Your task to perform on an android device: Open Google Chrome and open the bookmarks view Image 0: 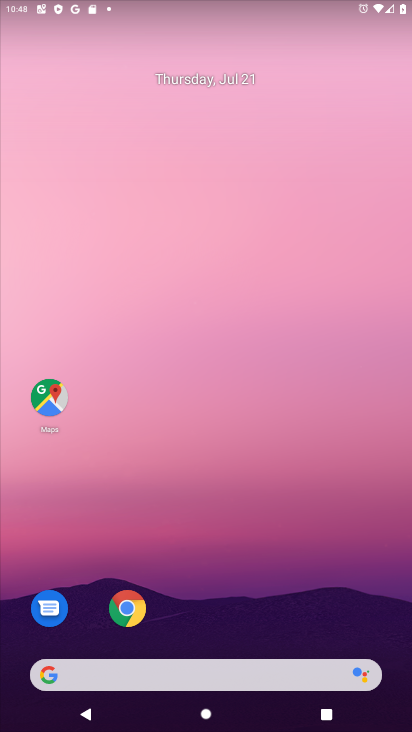
Step 0: drag from (348, 591) to (145, 186)
Your task to perform on an android device: Open Google Chrome and open the bookmarks view Image 1: 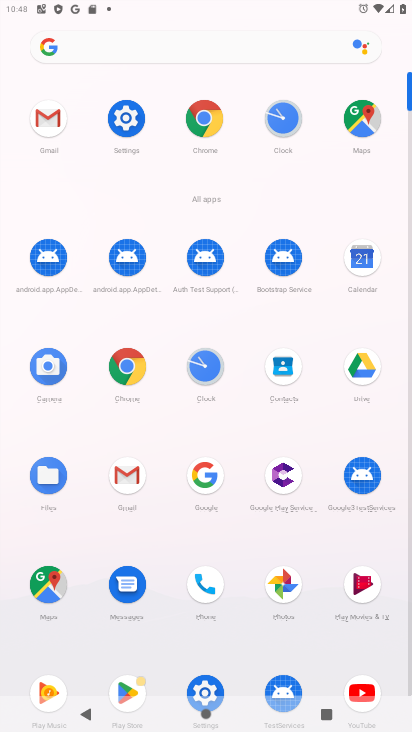
Step 1: click (125, 362)
Your task to perform on an android device: Open Google Chrome and open the bookmarks view Image 2: 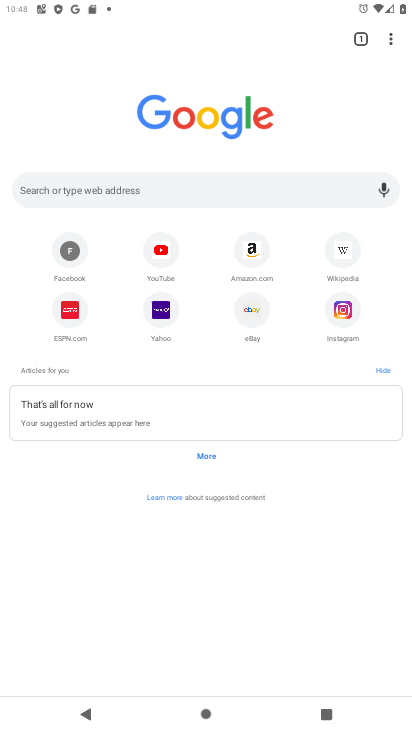
Step 2: click (391, 39)
Your task to perform on an android device: Open Google Chrome and open the bookmarks view Image 3: 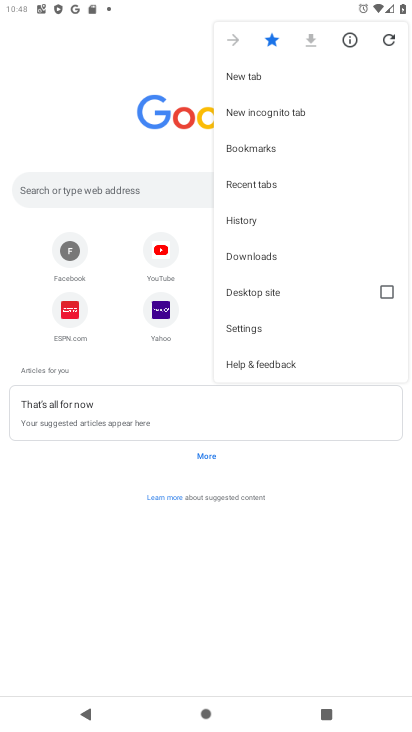
Step 3: click (255, 155)
Your task to perform on an android device: Open Google Chrome and open the bookmarks view Image 4: 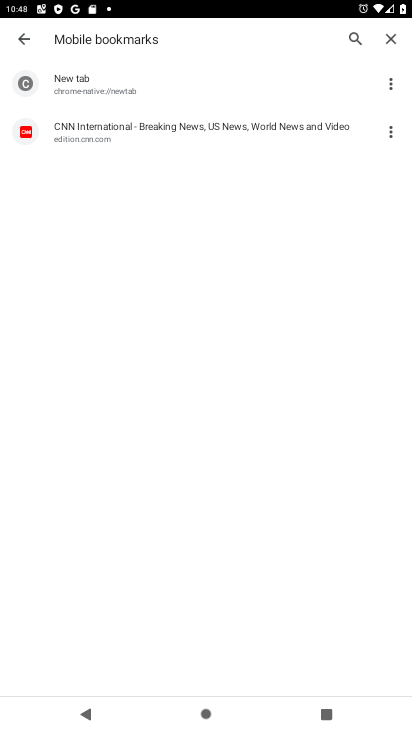
Step 4: task complete